Your task to perform on an android device: Open Android settings Image 0: 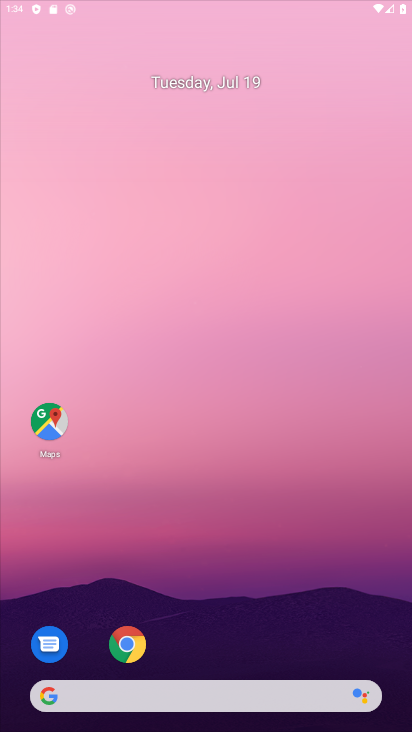
Step 0: click (109, 337)
Your task to perform on an android device: Open Android settings Image 1: 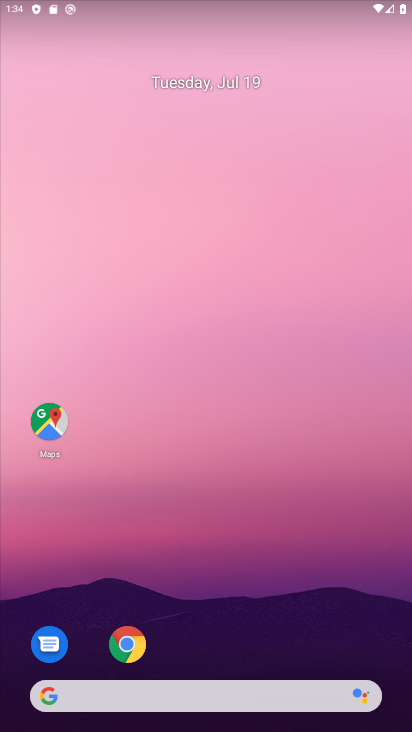
Step 1: drag from (203, 712) to (97, 192)
Your task to perform on an android device: Open Android settings Image 2: 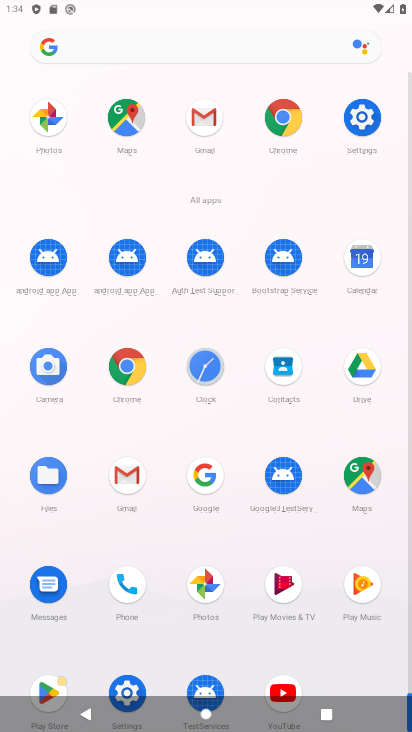
Step 2: click (357, 113)
Your task to perform on an android device: Open Android settings Image 3: 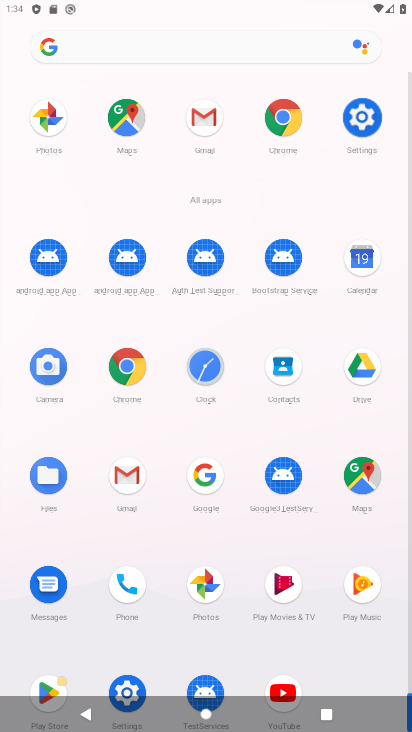
Step 3: click (359, 111)
Your task to perform on an android device: Open Android settings Image 4: 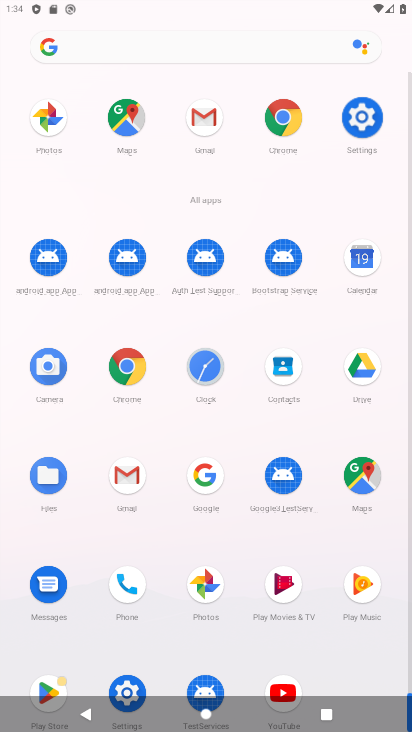
Step 4: click (359, 111)
Your task to perform on an android device: Open Android settings Image 5: 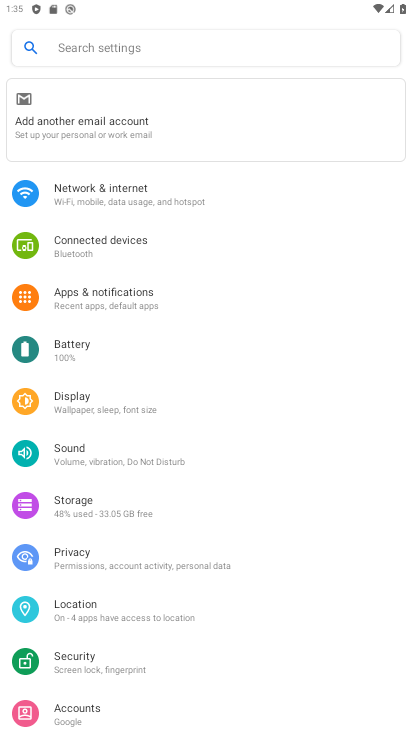
Step 5: click (77, 405)
Your task to perform on an android device: Open Android settings Image 6: 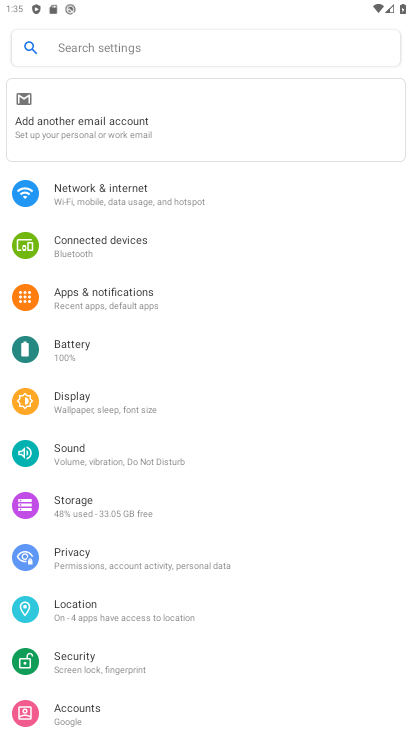
Step 6: click (78, 405)
Your task to perform on an android device: Open Android settings Image 7: 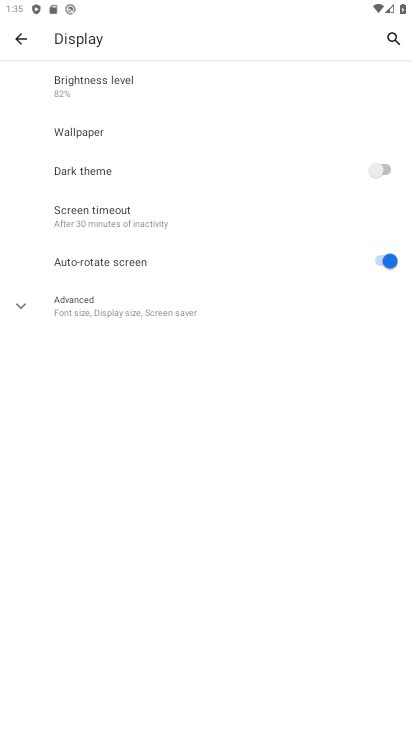
Step 7: click (18, 39)
Your task to perform on an android device: Open Android settings Image 8: 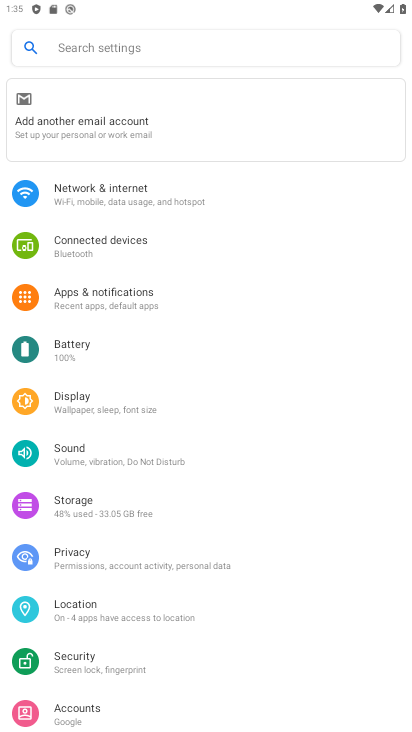
Step 8: click (81, 401)
Your task to perform on an android device: Open Android settings Image 9: 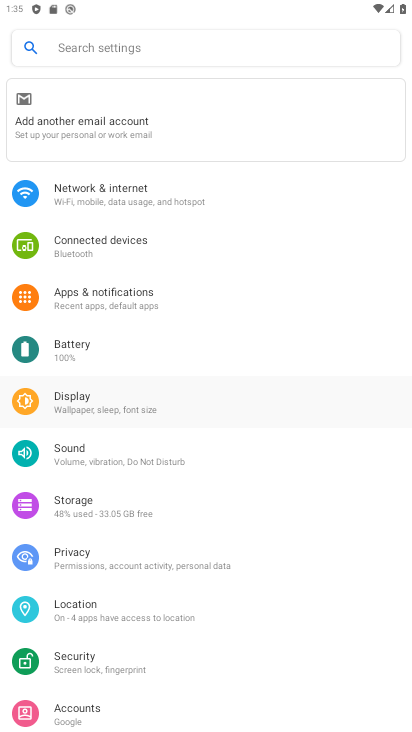
Step 9: click (81, 401)
Your task to perform on an android device: Open Android settings Image 10: 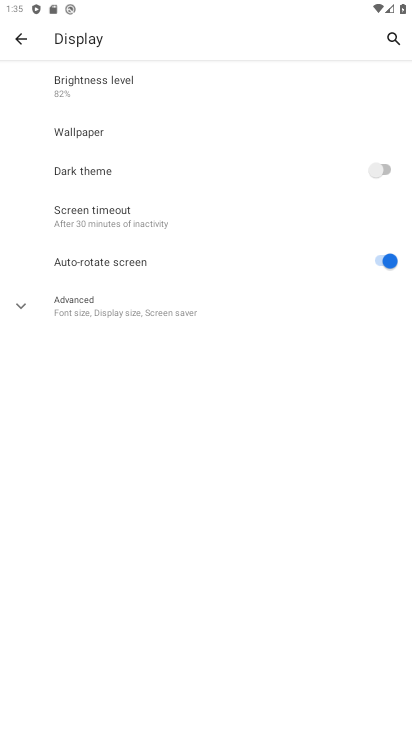
Step 10: click (75, 305)
Your task to perform on an android device: Open Android settings Image 11: 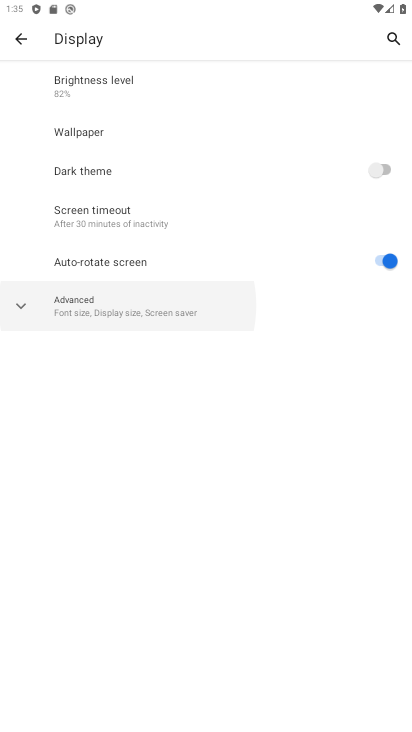
Step 11: click (81, 301)
Your task to perform on an android device: Open Android settings Image 12: 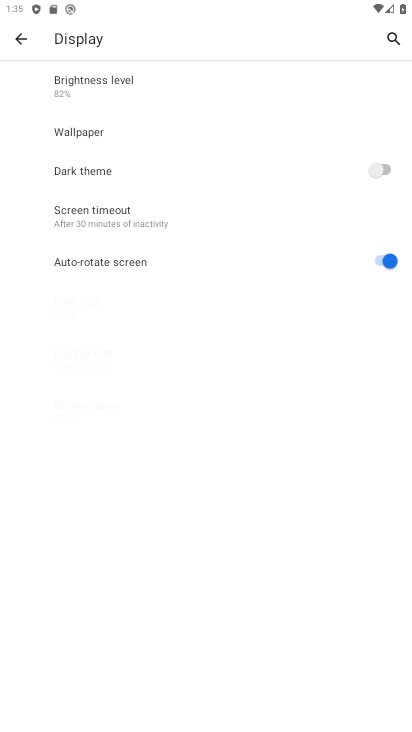
Step 12: click (82, 300)
Your task to perform on an android device: Open Android settings Image 13: 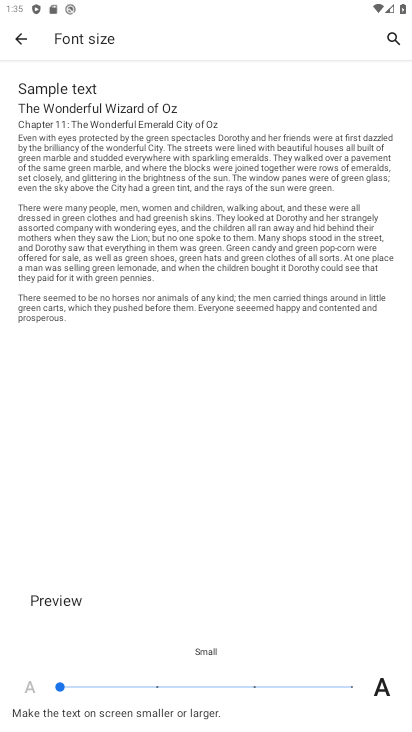
Step 13: click (348, 687)
Your task to perform on an android device: Open Android settings Image 14: 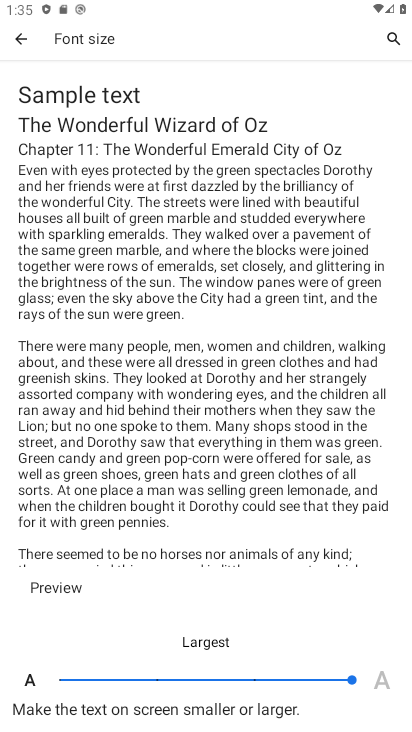
Step 14: click (24, 34)
Your task to perform on an android device: Open Android settings Image 15: 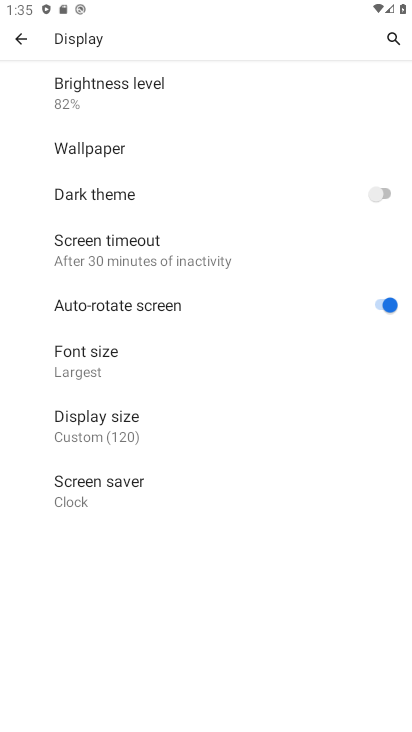
Step 15: click (19, 36)
Your task to perform on an android device: Open Android settings Image 16: 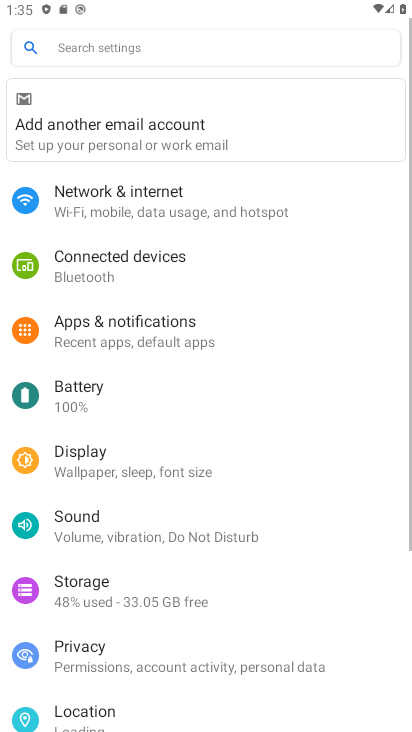
Step 16: drag from (126, 559) to (115, 164)
Your task to perform on an android device: Open Android settings Image 17: 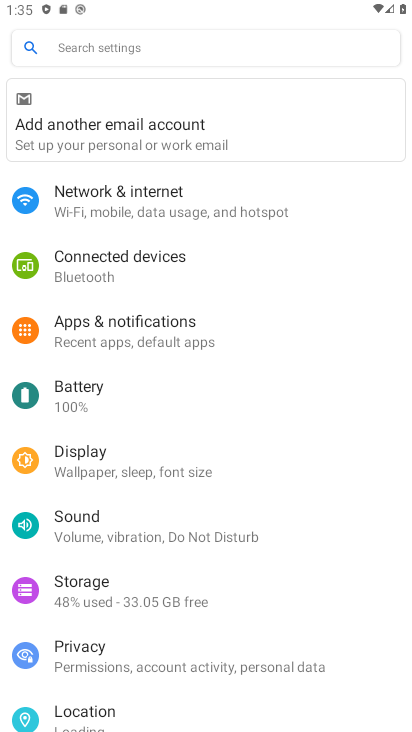
Step 17: drag from (155, 485) to (142, 200)
Your task to perform on an android device: Open Android settings Image 18: 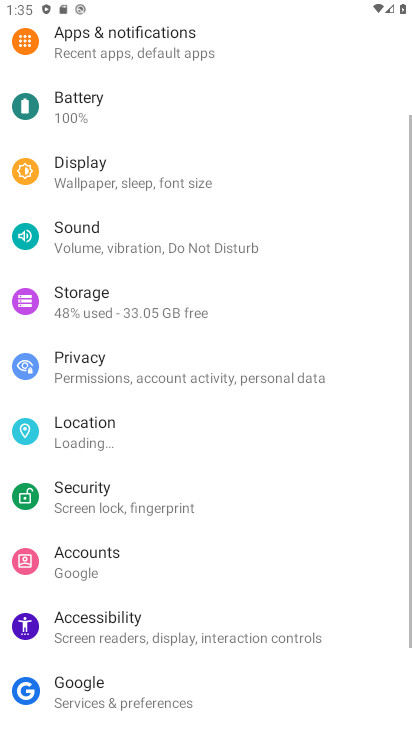
Step 18: drag from (169, 473) to (158, 243)
Your task to perform on an android device: Open Android settings Image 19: 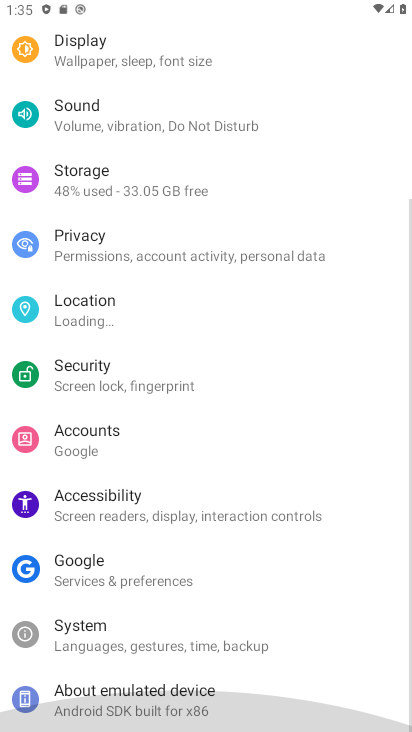
Step 19: drag from (142, 551) to (147, 285)
Your task to perform on an android device: Open Android settings Image 20: 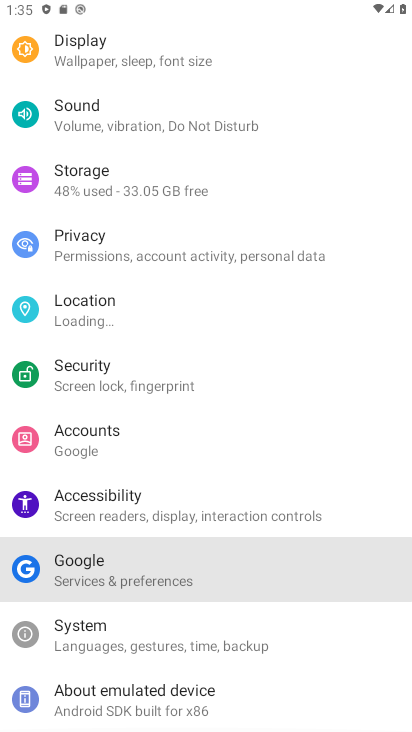
Step 20: click (183, 643)
Your task to perform on an android device: Open Android settings Image 21: 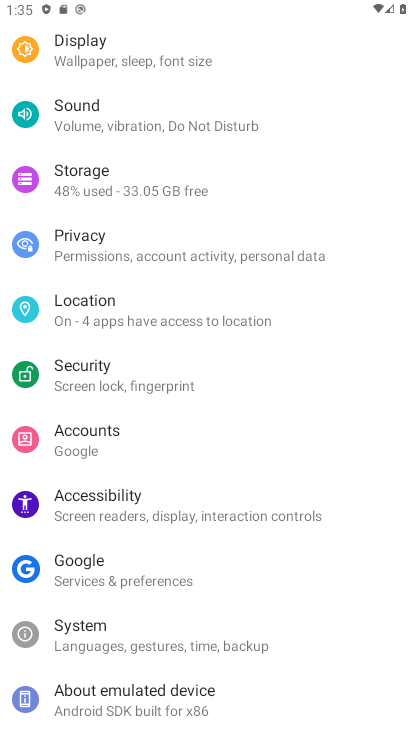
Step 21: click (110, 703)
Your task to perform on an android device: Open Android settings Image 22: 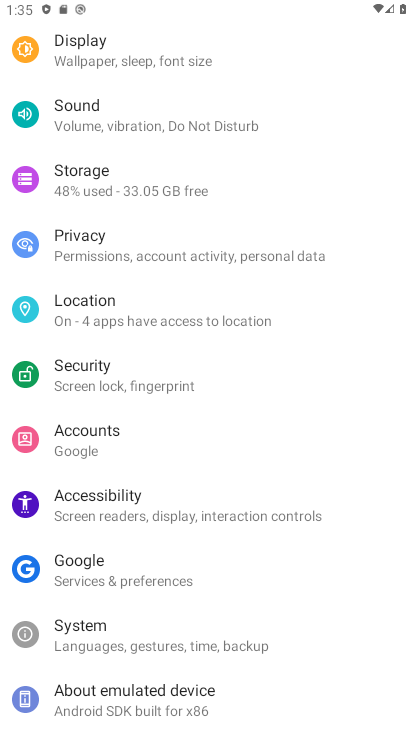
Step 22: click (110, 703)
Your task to perform on an android device: Open Android settings Image 23: 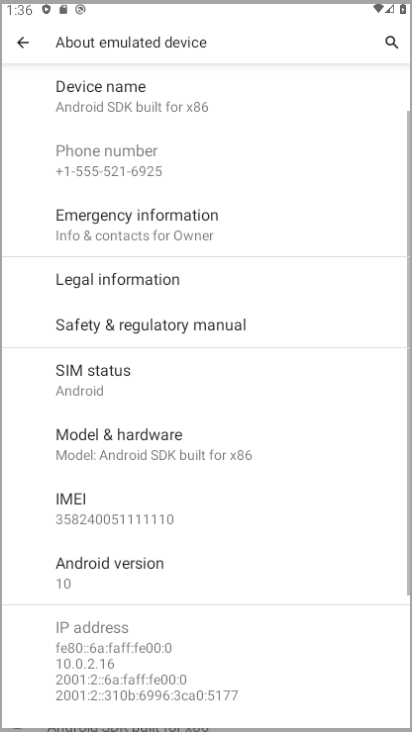
Step 23: click (119, 696)
Your task to perform on an android device: Open Android settings Image 24: 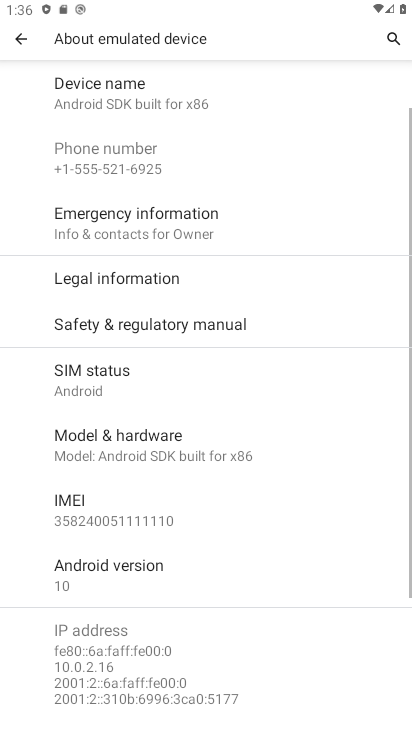
Step 24: click (124, 695)
Your task to perform on an android device: Open Android settings Image 25: 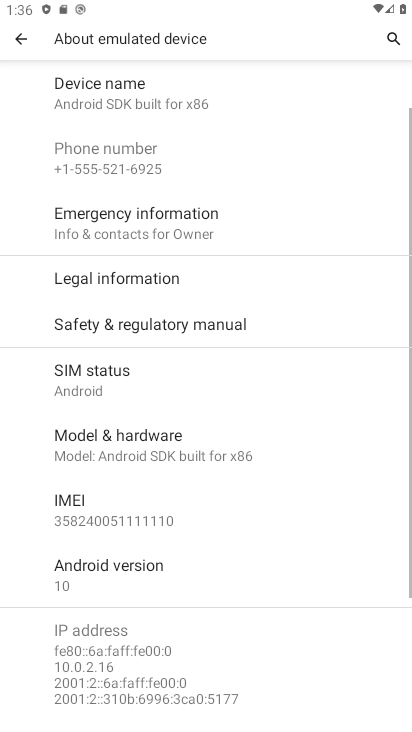
Step 25: task complete